Your task to perform on an android device: Open wifi settings Image 0: 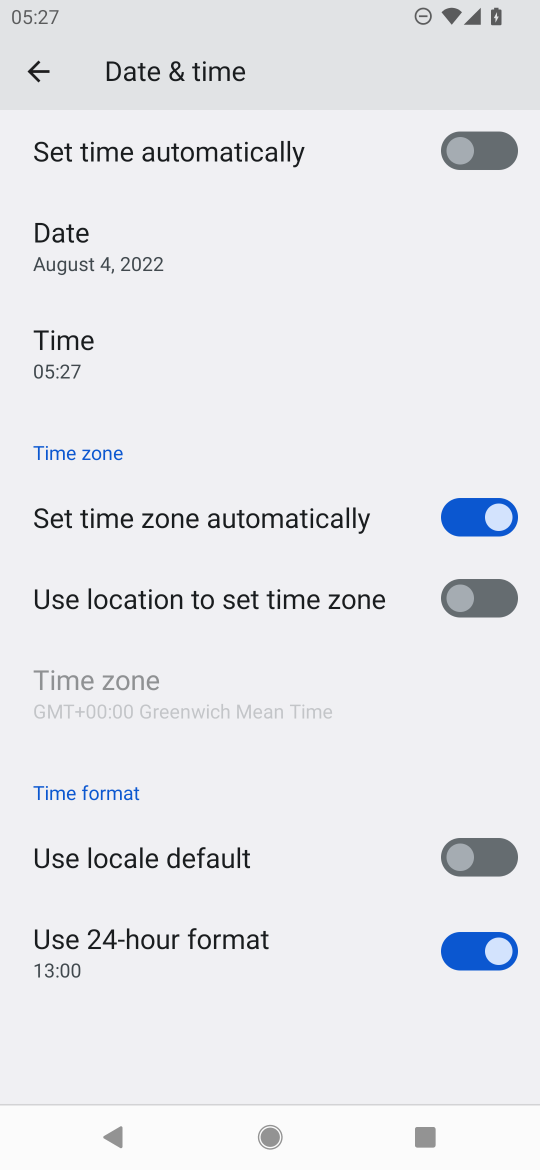
Step 0: press home button
Your task to perform on an android device: Open wifi settings Image 1: 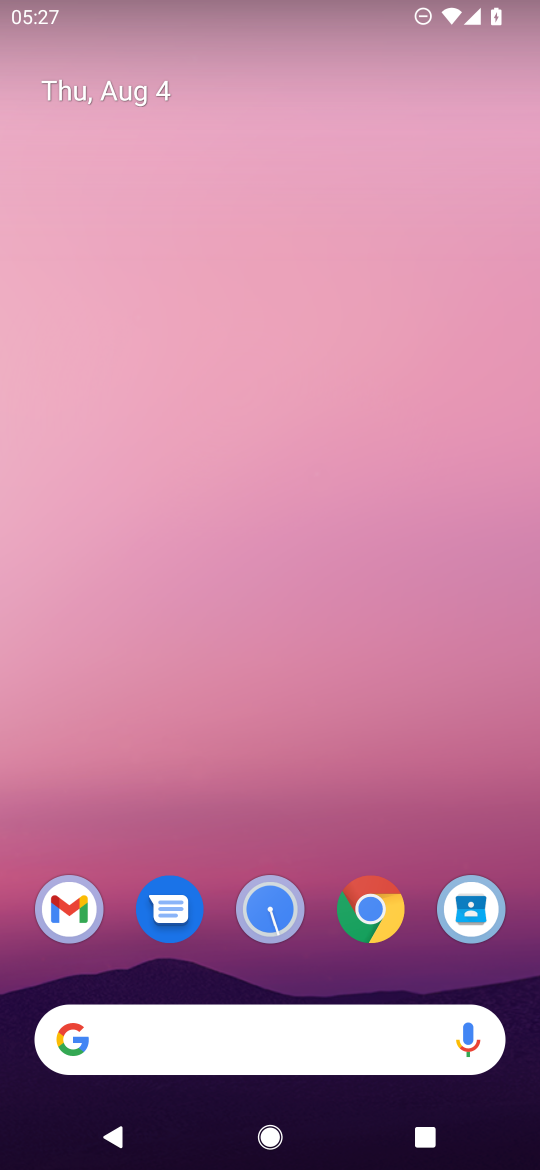
Step 1: drag from (293, 816) to (301, 26)
Your task to perform on an android device: Open wifi settings Image 2: 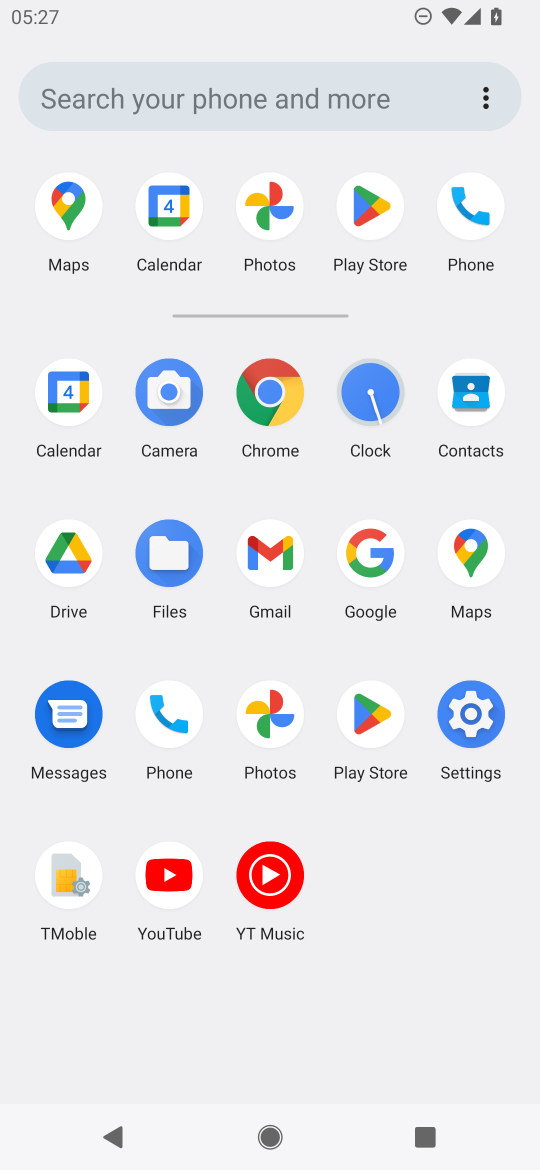
Step 2: click (468, 726)
Your task to perform on an android device: Open wifi settings Image 3: 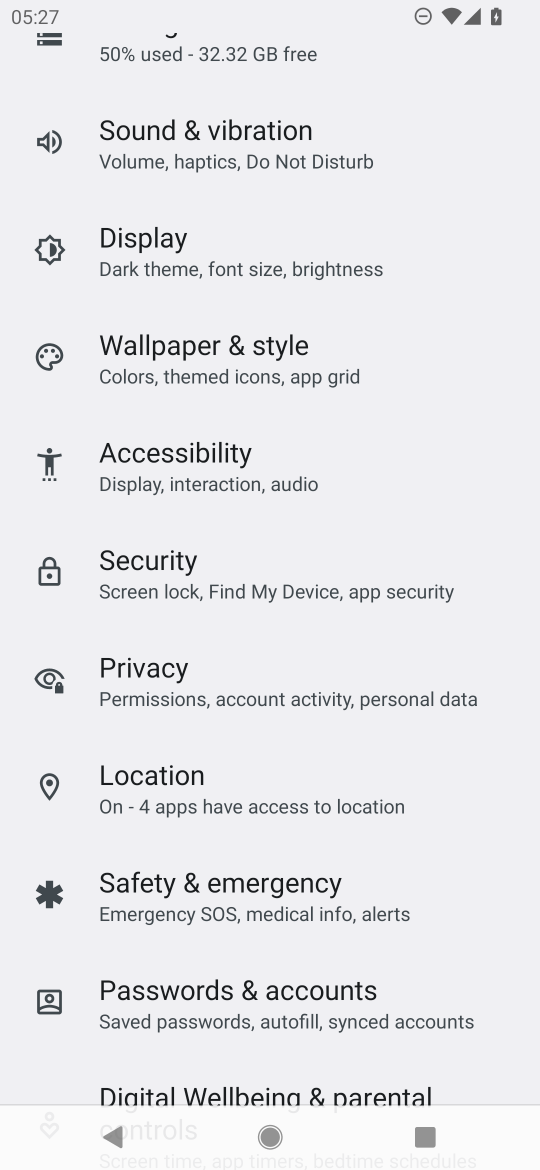
Step 3: drag from (198, 102) to (217, 942)
Your task to perform on an android device: Open wifi settings Image 4: 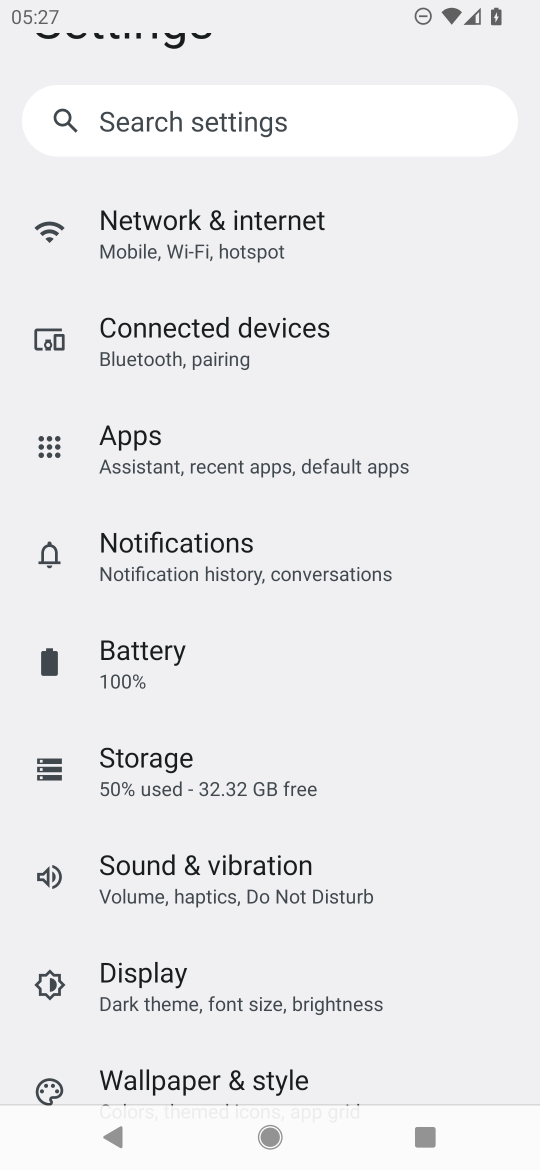
Step 4: click (172, 237)
Your task to perform on an android device: Open wifi settings Image 5: 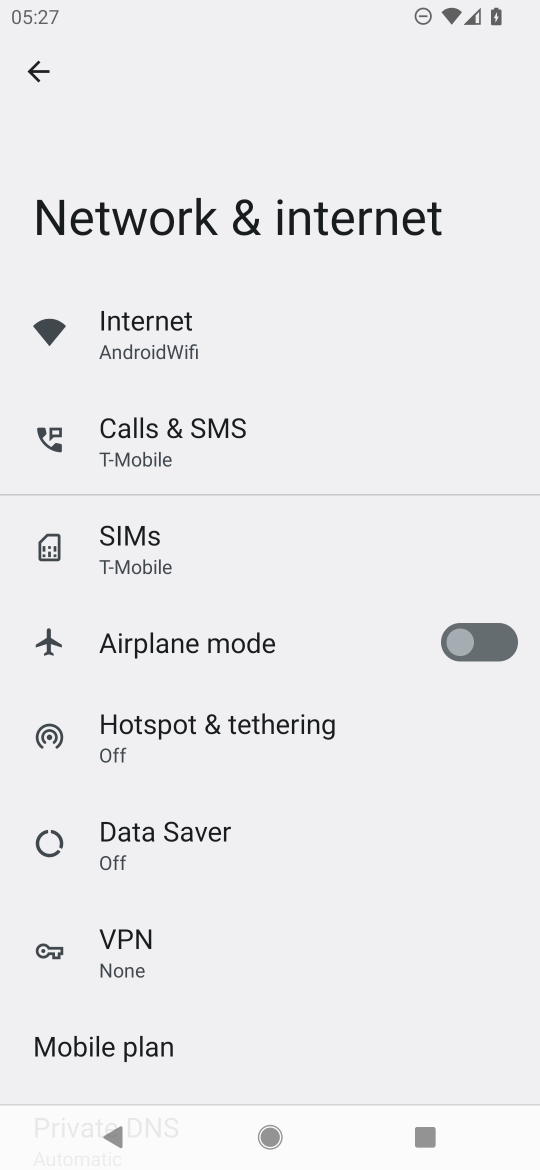
Step 5: click (166, 349)
Your task to perform on an android device: Open wifi settings Image 6: 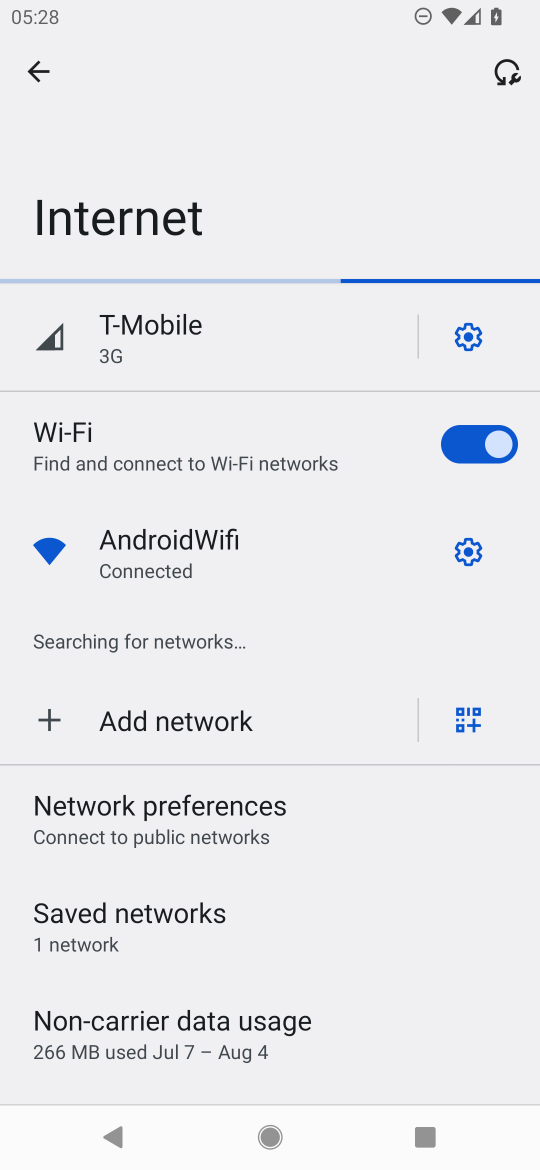
Step 6: click (211, 560)
Your task to perform on an android device: Open wifi settings Image 7: 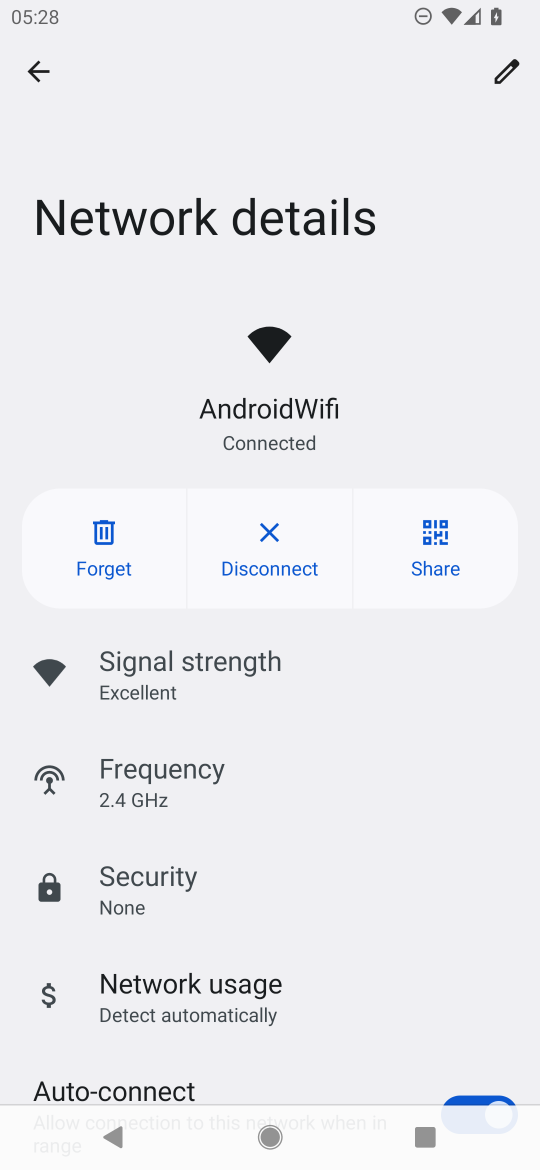
Step 7: task complete